Your task to perform on an android device: Go to notification settings Image 0: 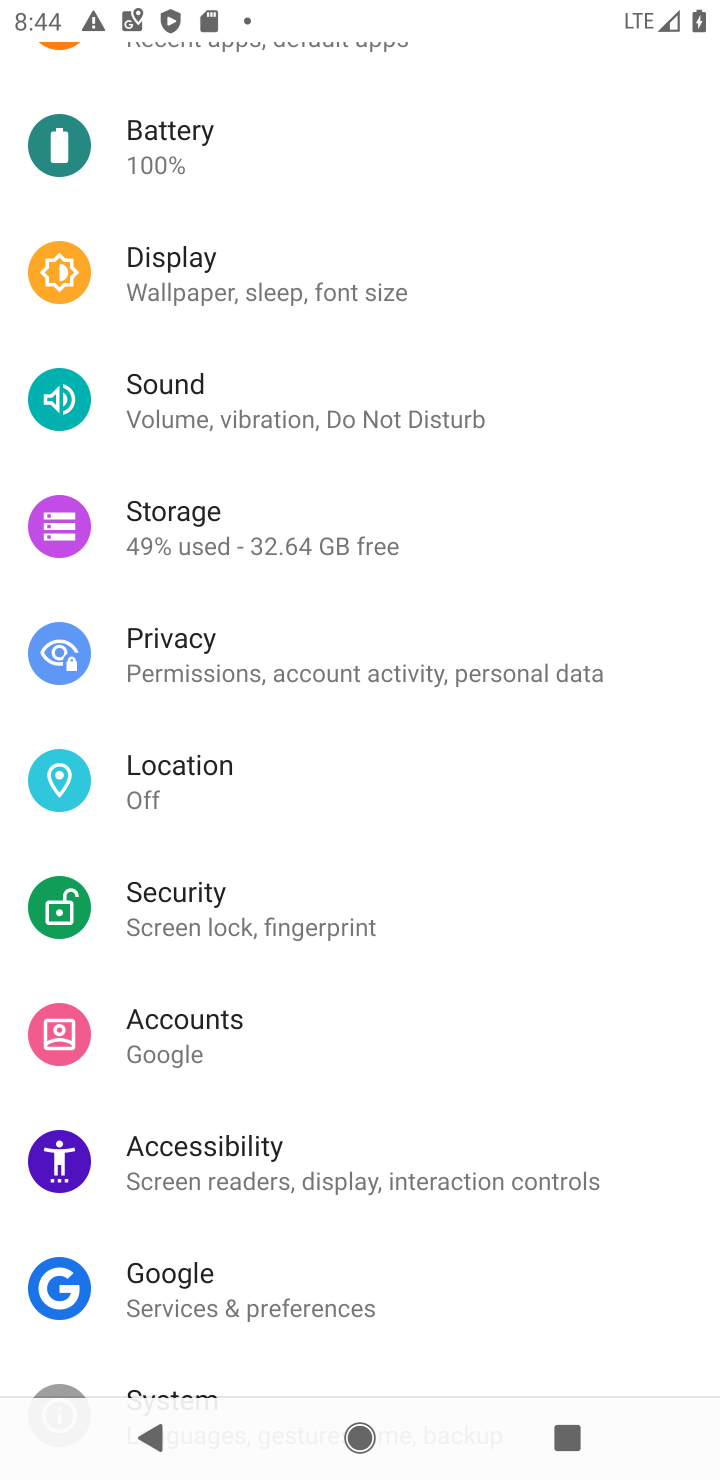
Step 0: drag from (477, 290) to (423, 1318)
Your task to perform on an android device: Go to notification settings Image 1: 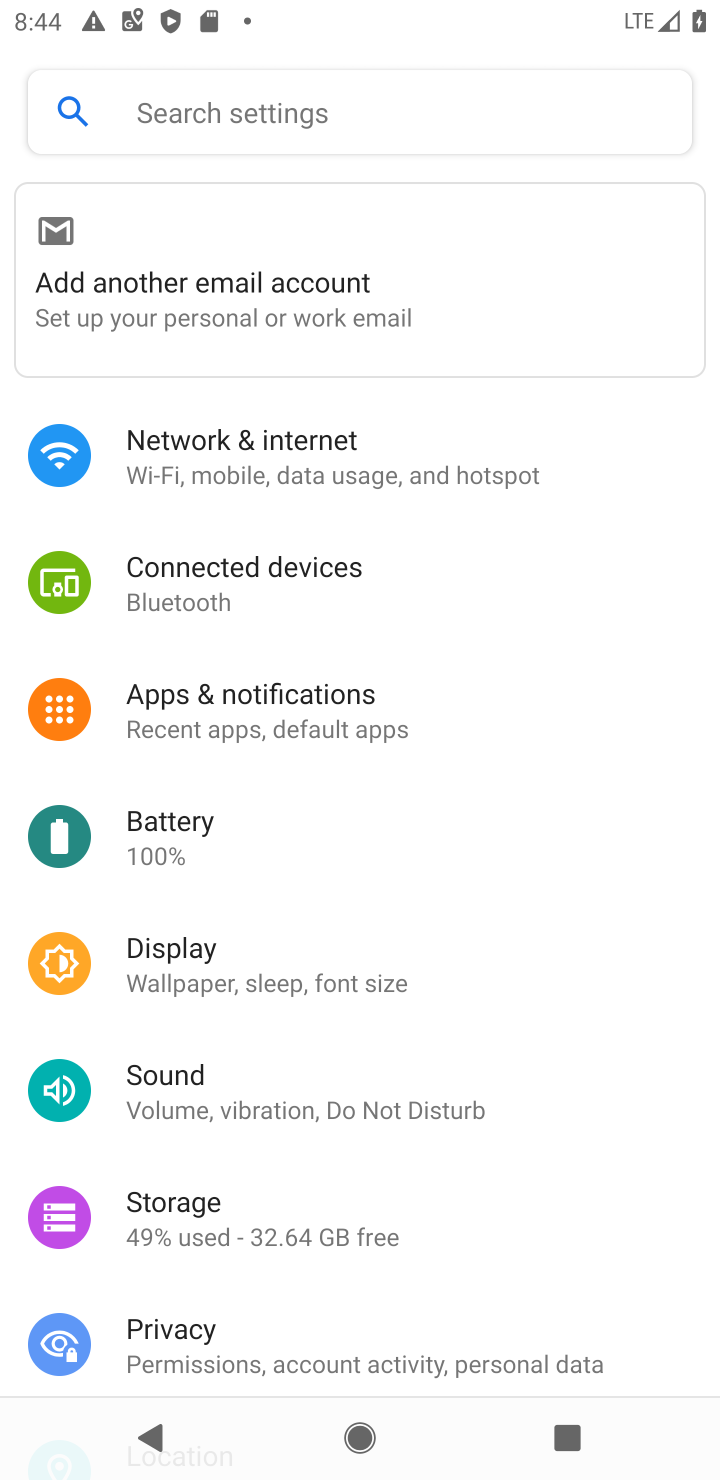
Step 1: click (304, 691)
Your task to perform on an android device: Go to notification settings Image 2: 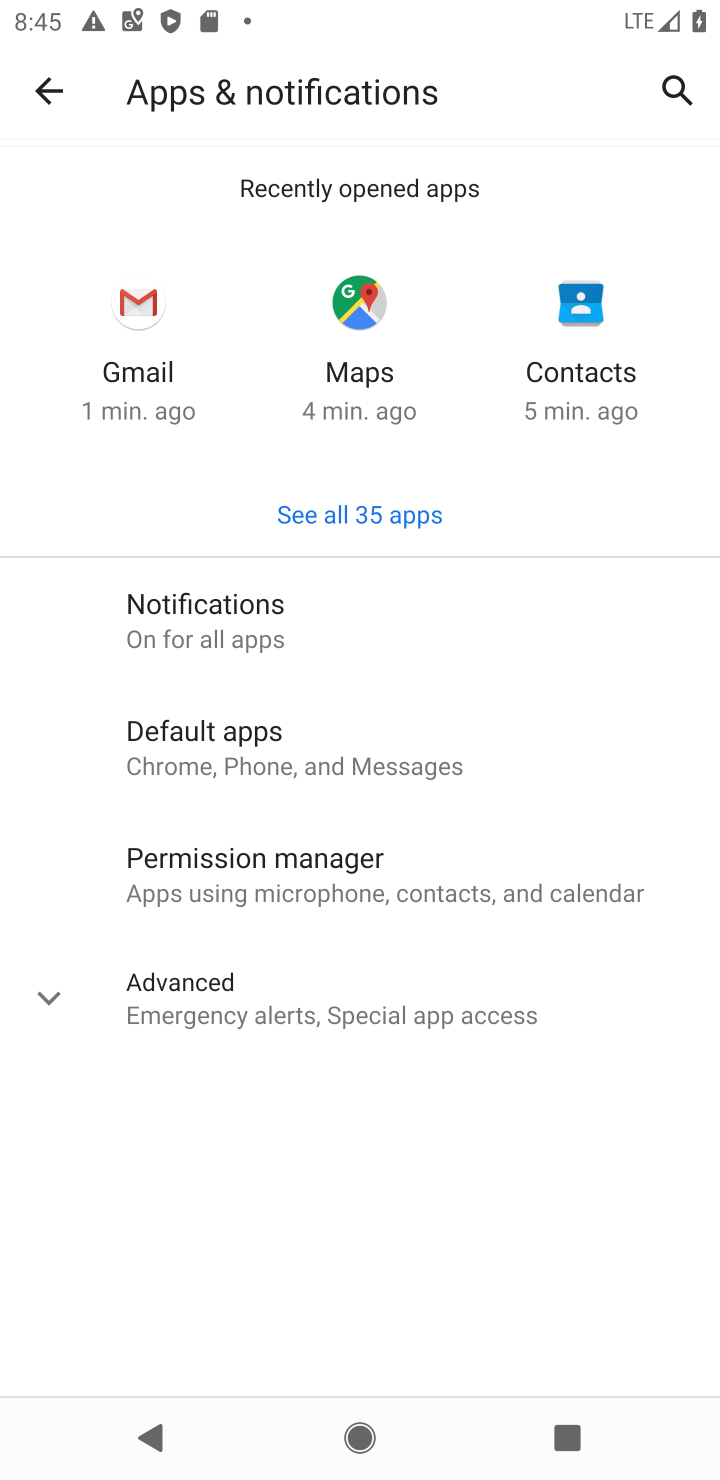
Step 2: click (312, 630)
Your task to perform on an android device: Go to notification settings Image 3: 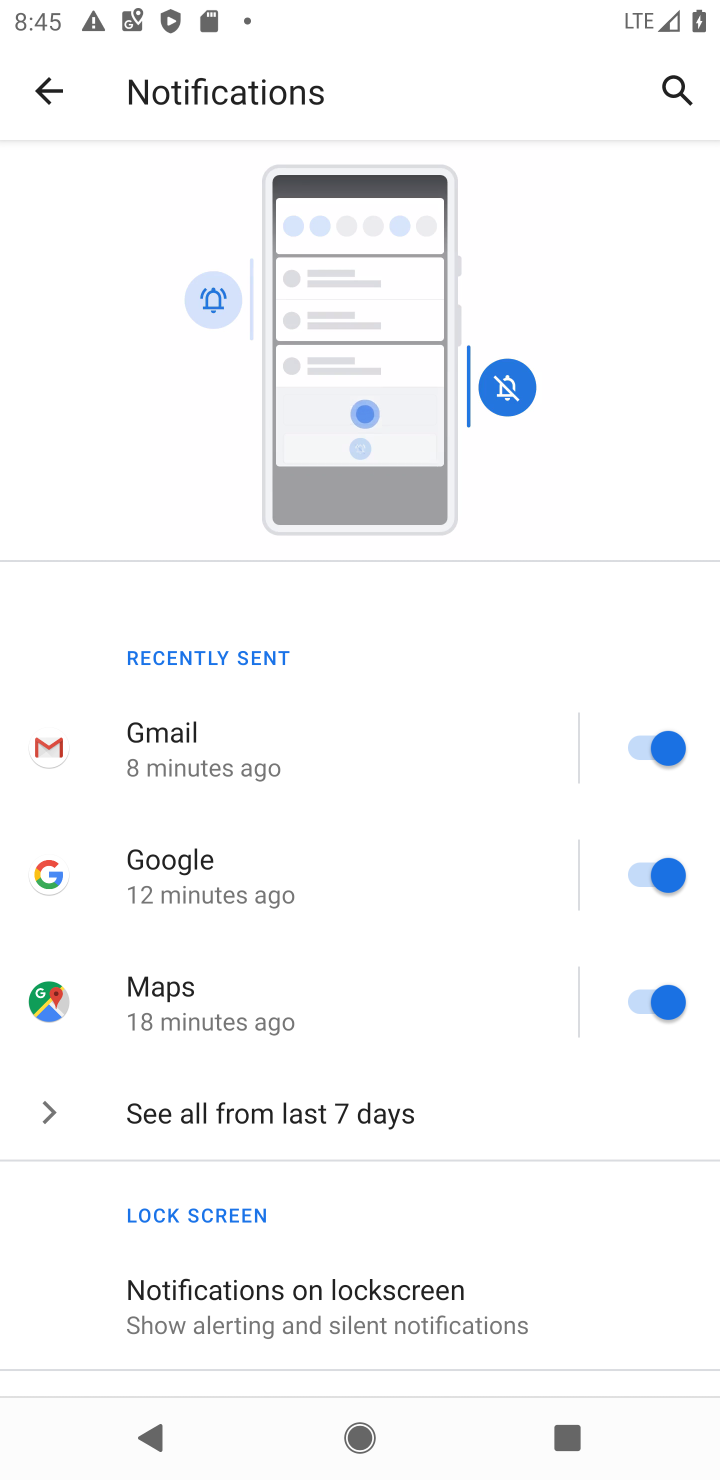
Step 3: task complete